Your task to perform on an android device: Open location settings Image 0: 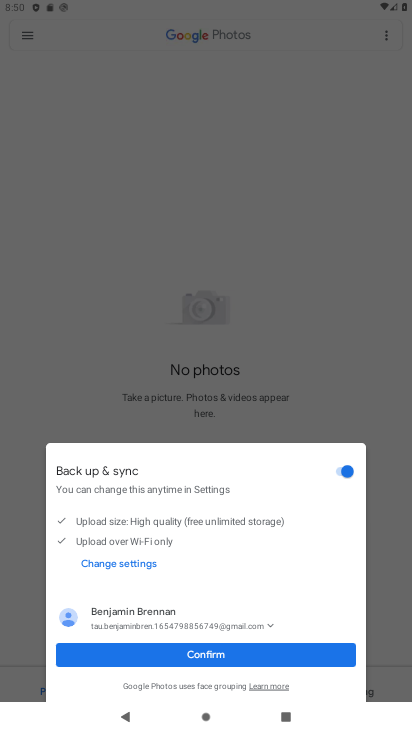
Step 0: press home button
Your task to perform on an android device: Open location settings Image 1: 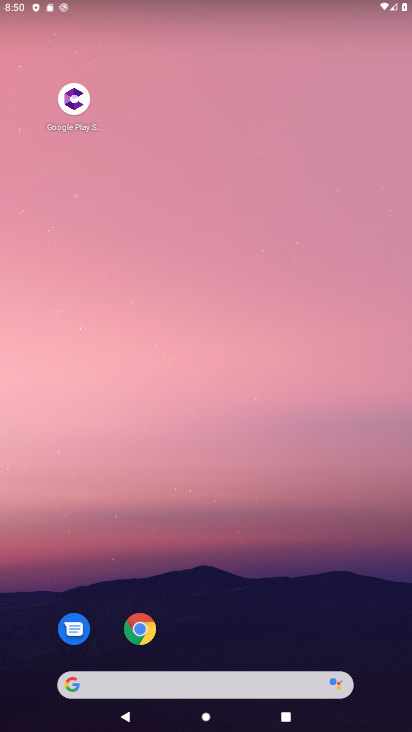
Step 1: drag from (233, 638) to (275, 74)
Your task to perform on an android device: Open location settings Image 2: 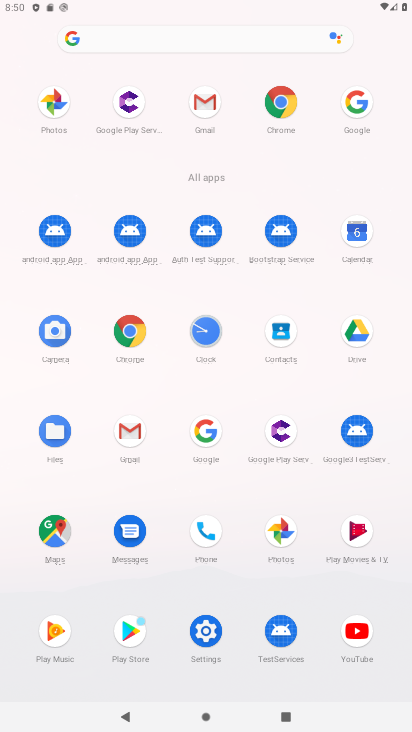
Step 2: click (210, 628)
Your task to perform on an android device: Open location settings Image 3: 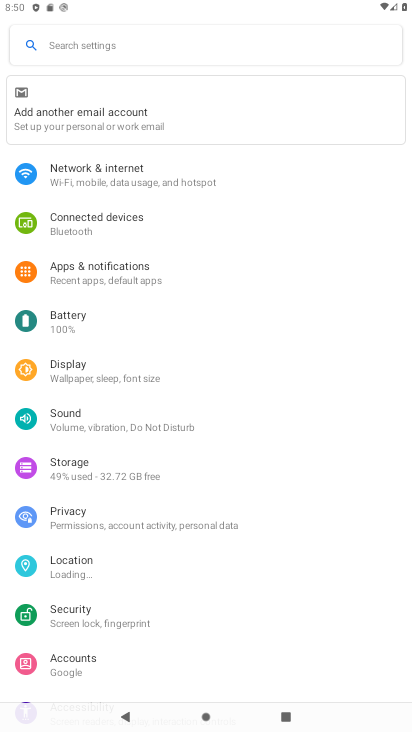
Step 3: click (90, 569)
Your task to perform on an android device: Open location settings Image 4: 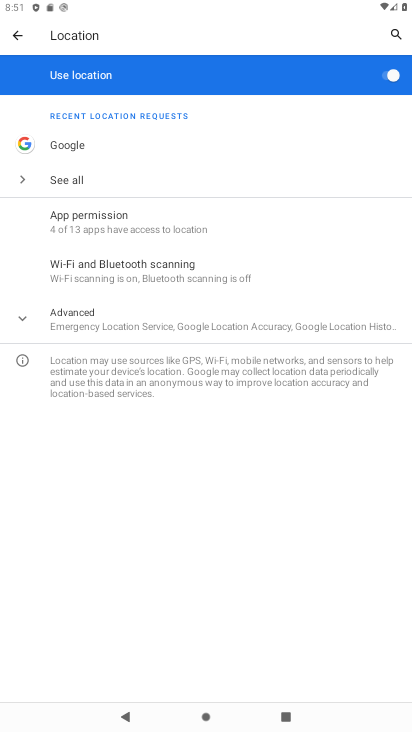
Step 4: task complete